Your task to perform on an android device: make emails show in primary in the gmail app Image 0: 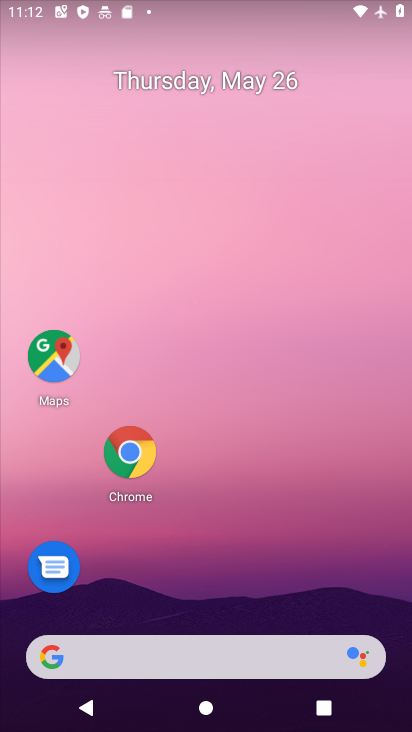
Step 0: press home button
Your task to perform on an android device: make emails show in primary in the gmail app Image 1: 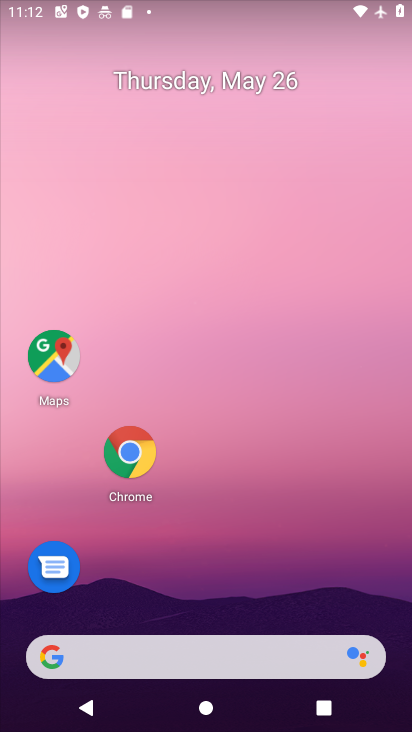
Step 1: drag from (179, 643) to (324, 167)
Your task to perform on an android device: make emails show in primary in the gmail app Image 2: 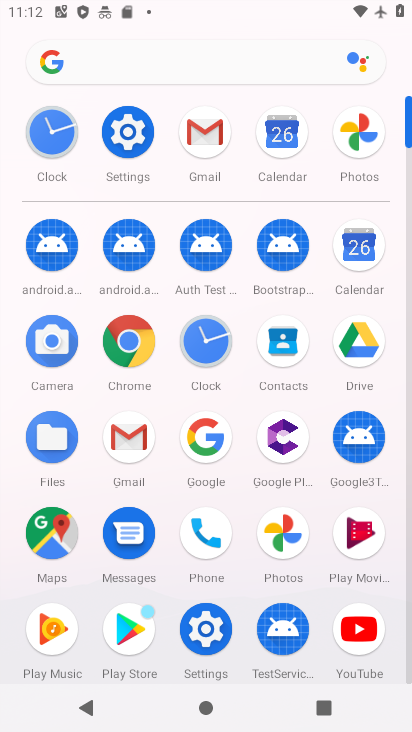
Step 2: click (208, 147)
Your task to perform on an android device: make emails show in primary in the gmail app Image 3: 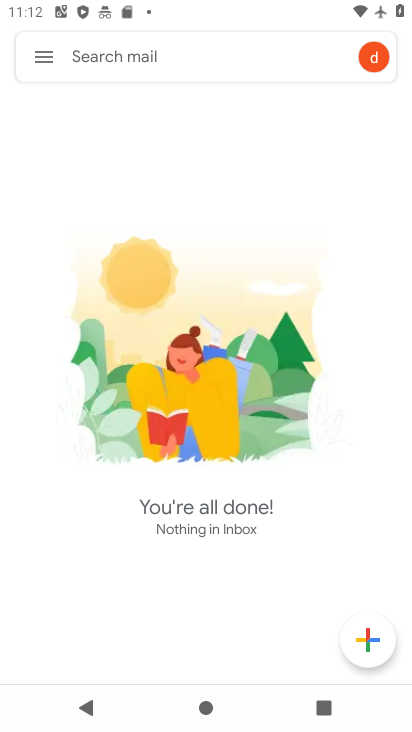
Step 3: click (42, 54)
Your task to perform on an android device: make emails show in primary in the gmail app Image 4: 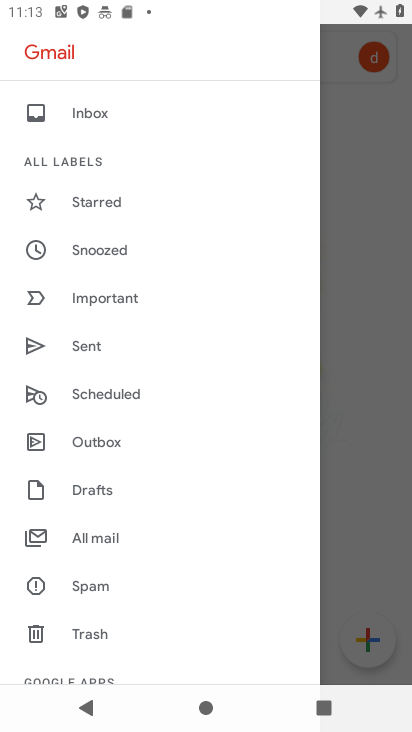
Step 4: drag from (152, 595) to (239, 68)
Your task to perform on an android device: make emails show in primary in the gmail app Image 5: 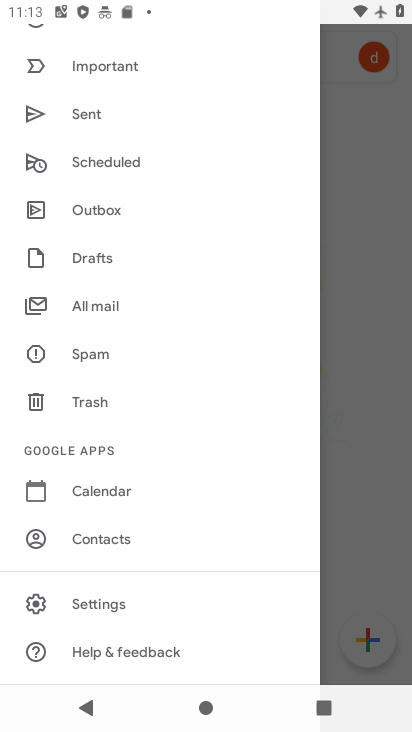
Step 5: click (103, 607)
Your task to perform on an android device: make emails show in primary in the gmail app Image 6: 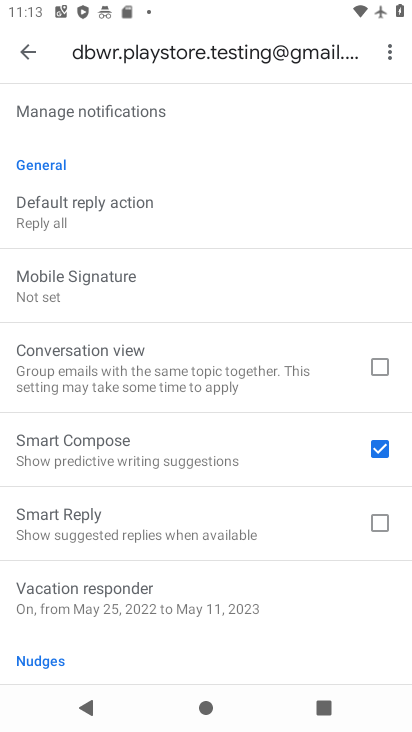
Step 6: task complete